Your task to perform on an android device: What's the weather? Image 0: 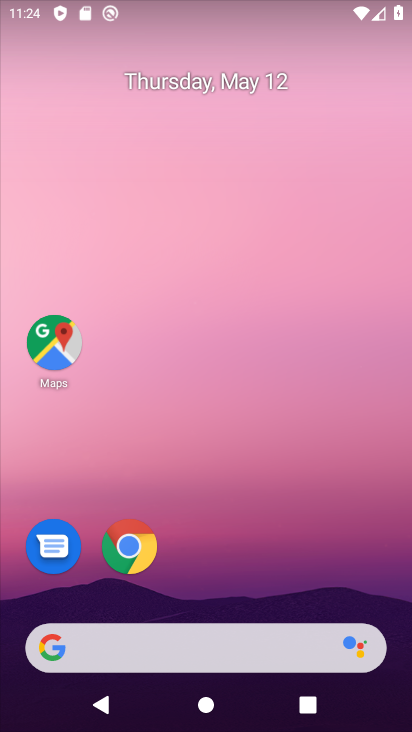
Step 0: drag from (233, 711) to (226, 222)
Your task to perform on an android device: What's the weather? Image 1: 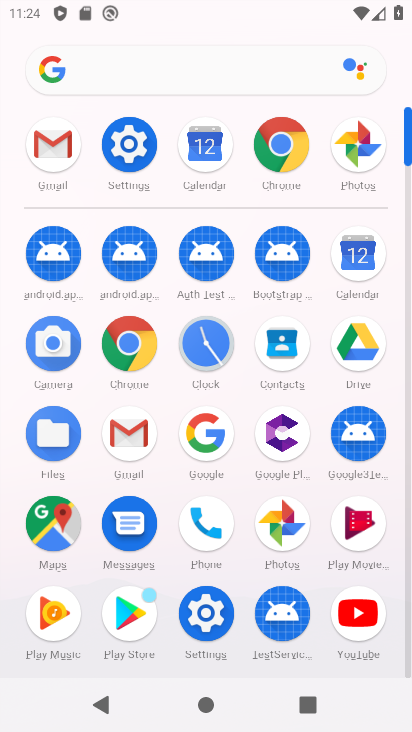
Step 1: click (208, 428)
Your task to perform on an android device: What's the weather? Image 2: 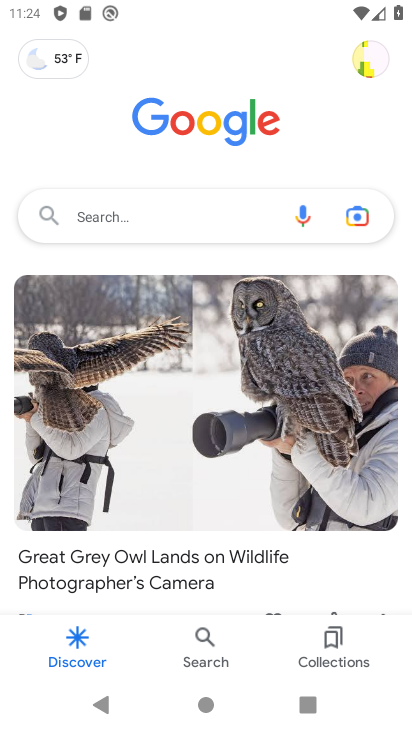
Step 2: click (58, 56)
Your task to perform on an android device: What's the weather? Image 3: 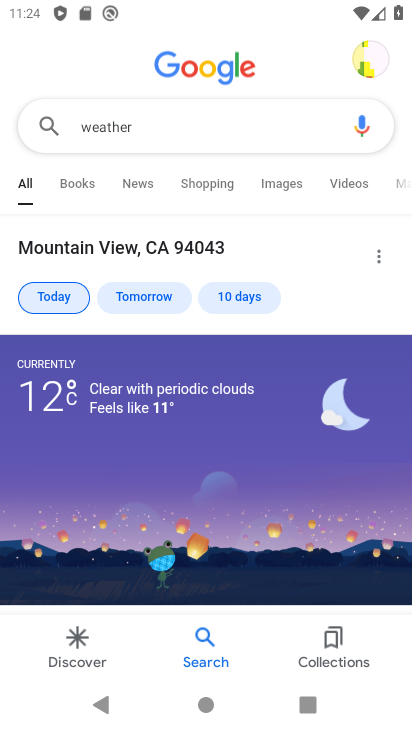
Step 3: task complete